Your task to perform on an android device: turn off notifications settings in the gmail app Image 0: 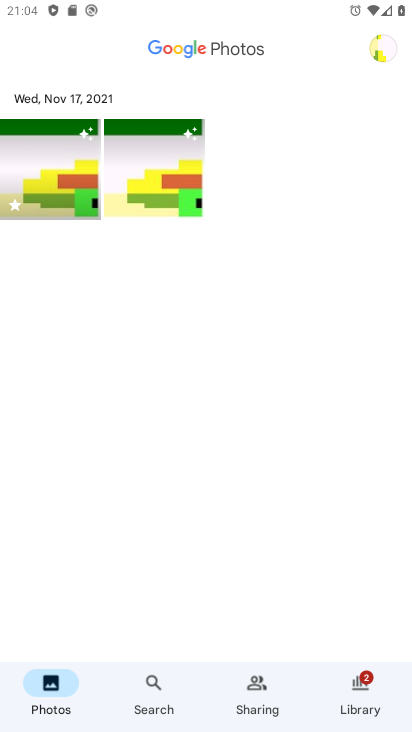
Step 0: press home button
Your task to perform on an android device: turn off notifications settings in the gmail app Image 1: 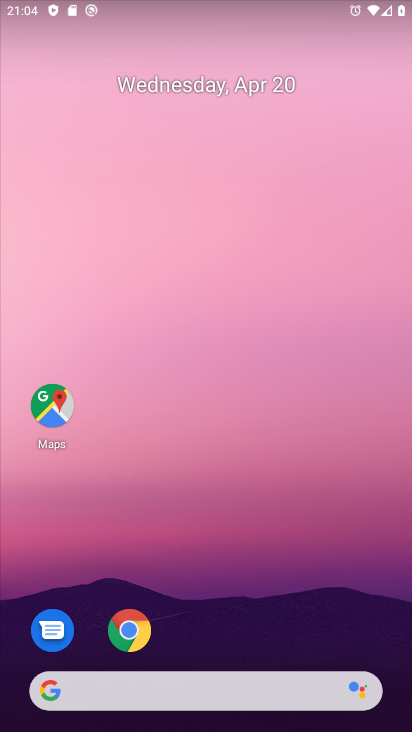
Step 1: drag from (258, 613) to (160, 161)
Your task to perform on an android device: turn off notifications settings in the gmail app Image 2: 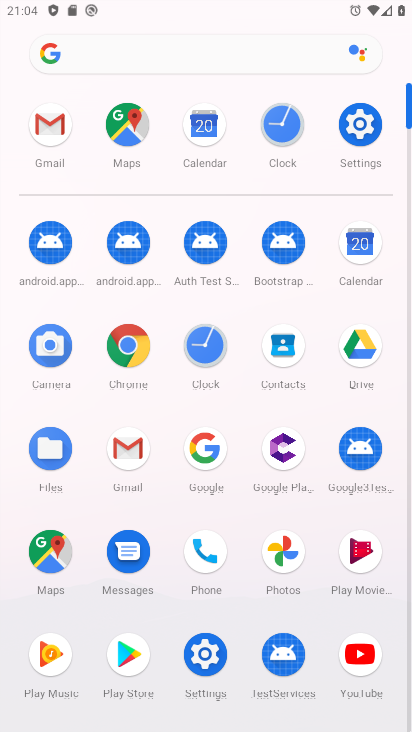
Step 2: click (48, 112)
Your task to perform on an android device: turn off notifications settings in the gmail app Image 3: 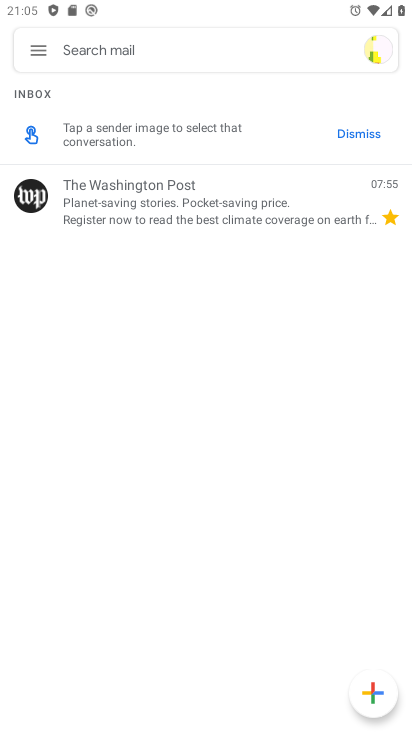
Step 3: click (38, 51)
Your task to perform on an android device: turn off notifications settings in the gmail app Image 4: 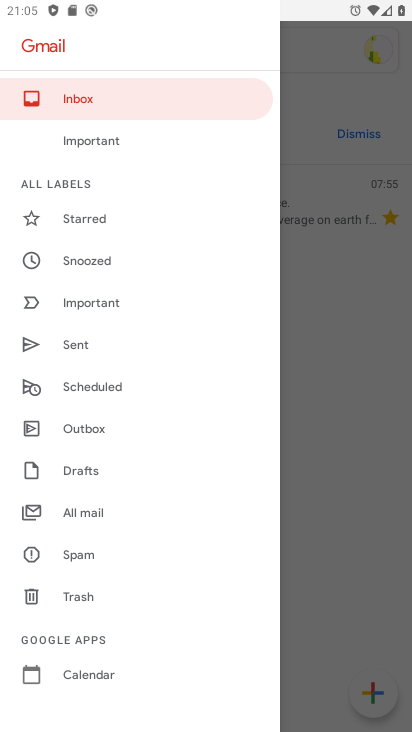
Step 4: drag from (130, 642) to (112, 327)
Your task to perform on an android device: turn off notifications settings in the gmail app Image 5: 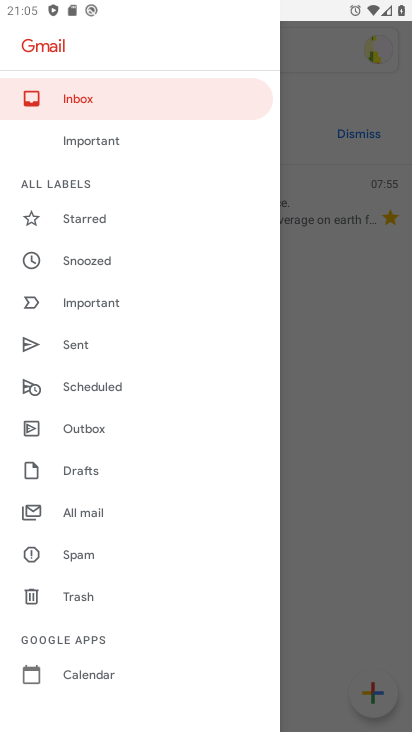
Step 5: drag from (95, 652) to (140, 339)
Your task to perform on an android device: turn off notifications settings in the gmail app Image 6: 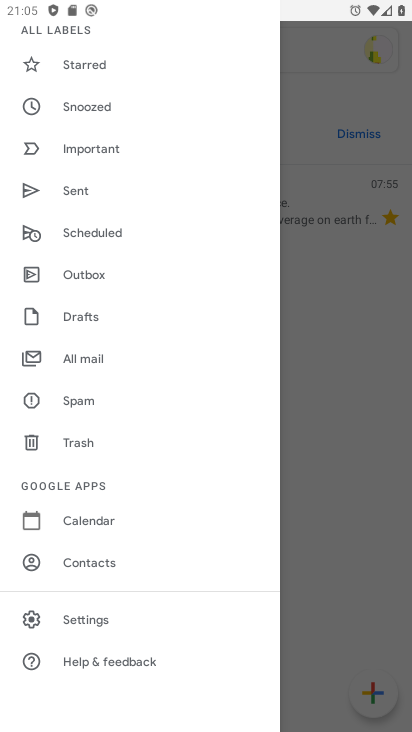
Step 6: click (89, 618)
Your task to perform on an android device: turn off notifications settings in the gmail app Image 7: 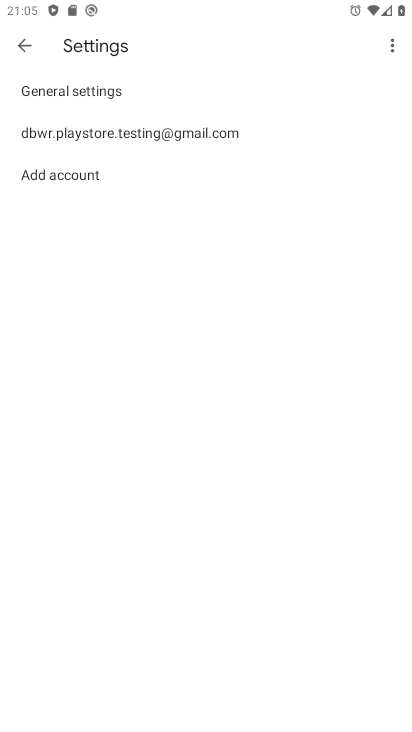
Step 7: click (96, 82)
Your task to perform on an android device: turn off notifications settings in the gmail app Image 8: 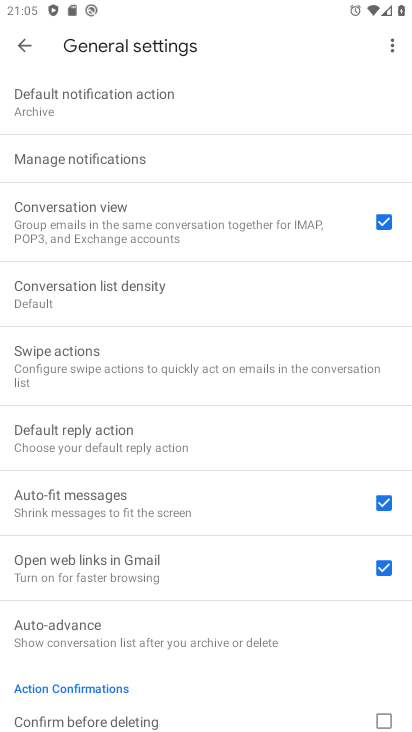
Step 8: click (108, 168)
Your task to perform on an android device: turn off notifications settings in the gmail app Image 9: 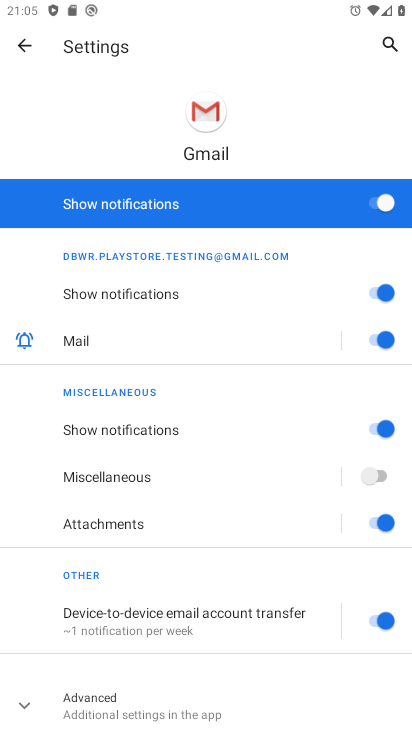
Step 9: click (375, 196)
Your task to perform on an android device: turn off notifications settings in the gmail app Image 10: 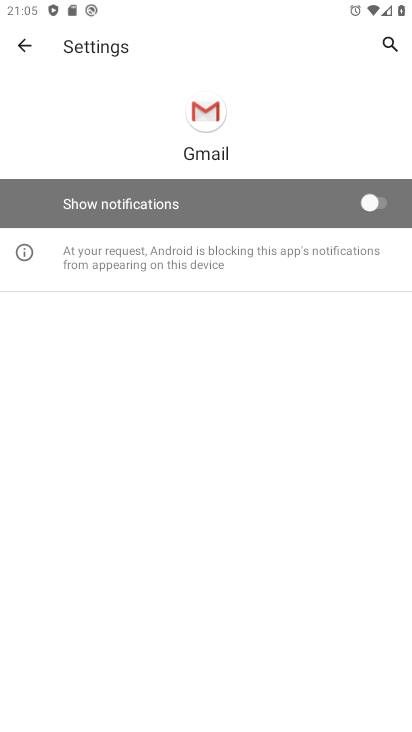
Step 10: task complete